Your task to perform on an android device: Open Chrome and go to the settings page Image 0: 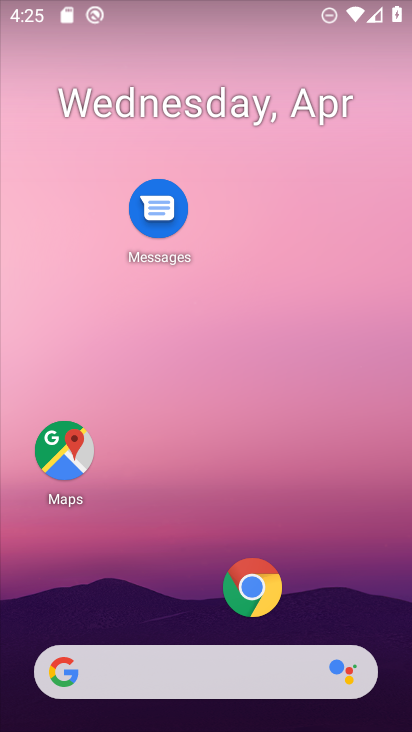
Step 0: click (249, 580)
Your task to perform on an android device: Open Chrome and go to the settings page Image 1: 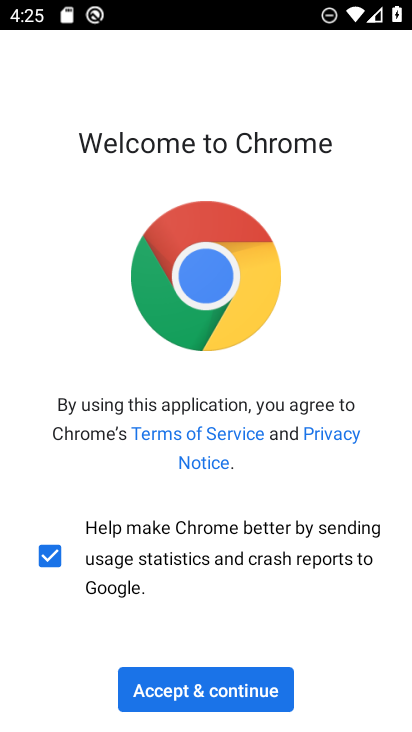
Step 1: click (225, 684)
Your task to perform on an android device: Open Chrome and go to the settings page Image 2: 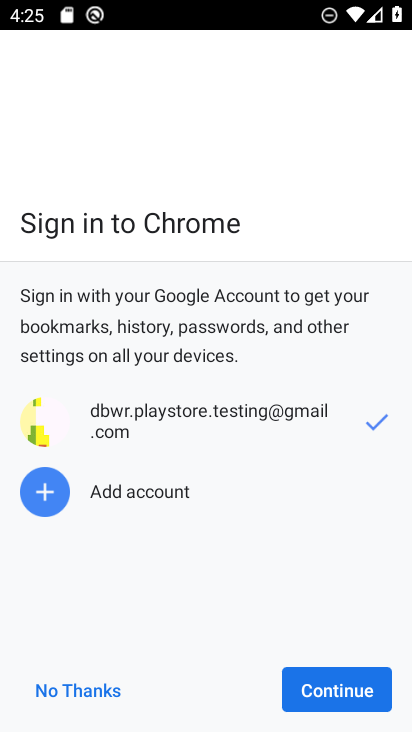
Step 2: click (303, 676)
Your task to perform on an android device: Open Chrome and go to the settings page Image 3: 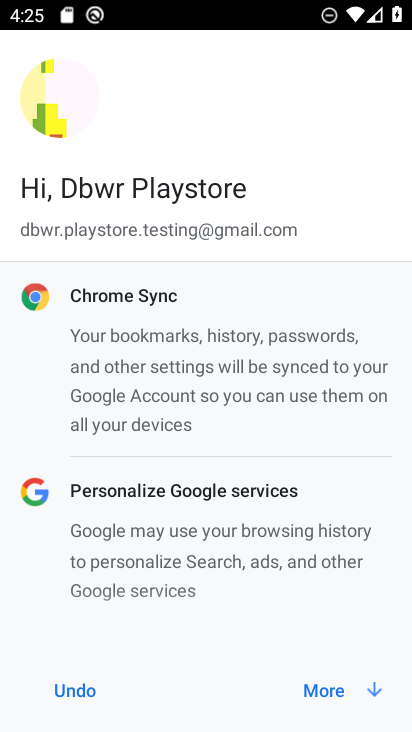
Step 3: click (306, 678)
Your task to perform on an android device: Open Chrome and go to the settings page Image 4: 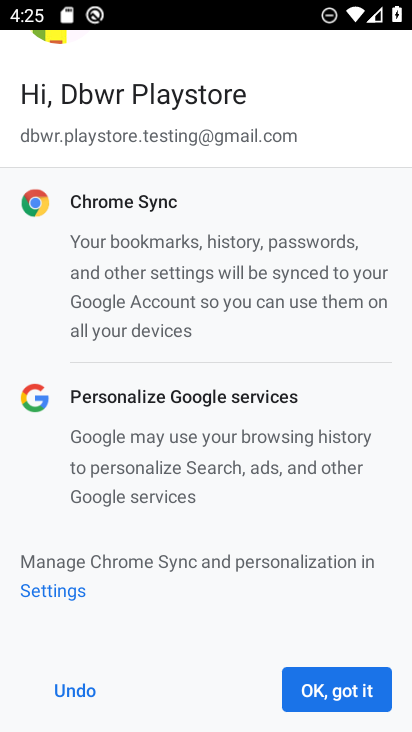
Step 4: click (338, 681)
Your task to perform on an android device: Open Chrome and go to the settings page Image 5: 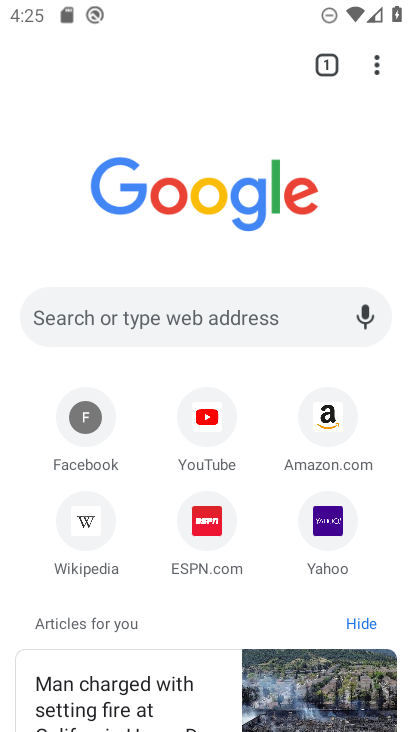
Step 5: click (376, 60)
Your task to perform on an android device: Open Chrome and go to the settings page Image 6: 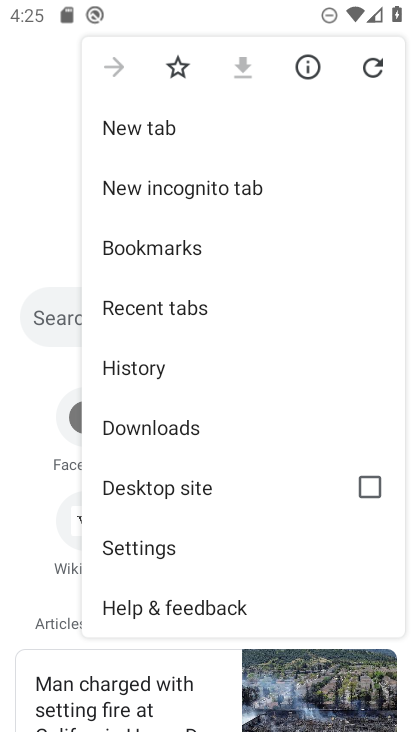
Step 6: click (160, 540)
Your task to perform on an android device: Open Chrome and go to the settings page Image 7: 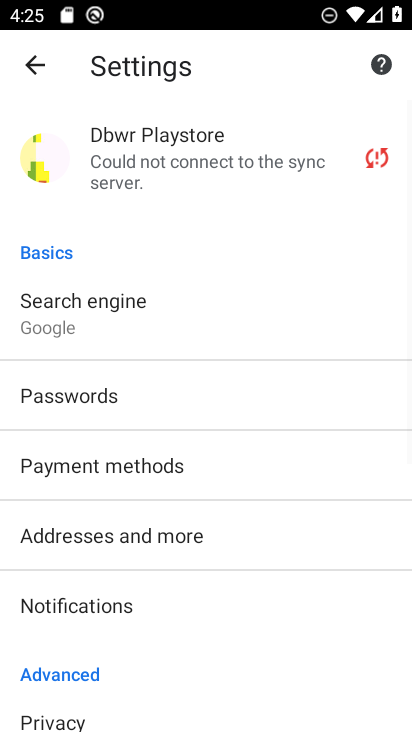
Step 7: task complete